Your task to perform on an android device: see creations saved in the google photos Image 0: 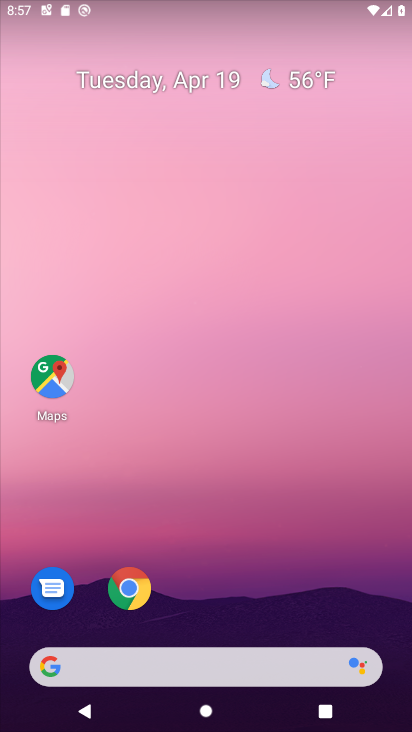
Step 0: drag from (217, 623) to (237, 38)
Your task to perform on an android device: see creations saved in the google photos Image 1: 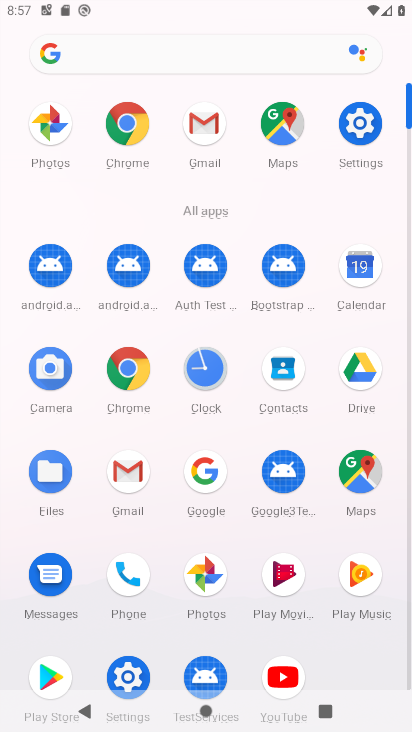
Step 1: click (48, 116)
Your task to perform on an android device: see creations saved in the google photos Image 2: 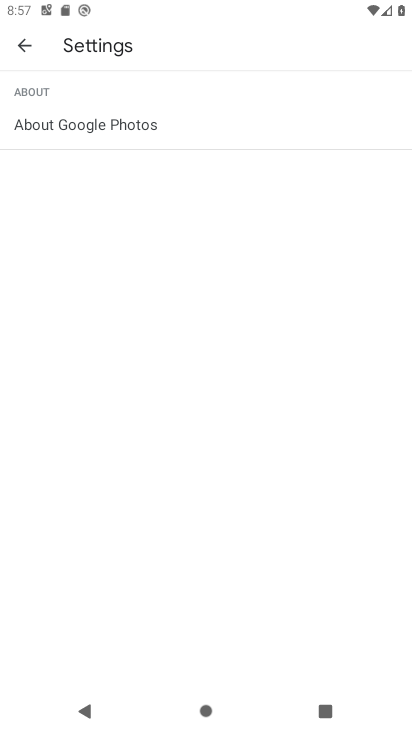
Step 2: press home button
Your task to perform on an android device: see creations saved in the google photos Image 3: 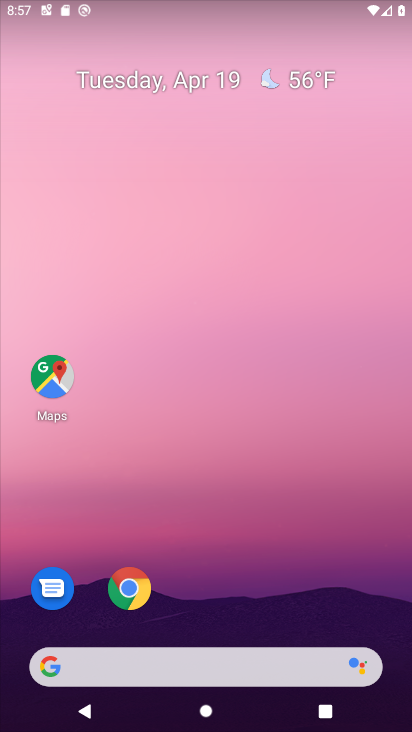
Step 3: drag from (199, 207) to (199, 41)
Your task to perform on an android device: see creations saved in the google photos Image 4: 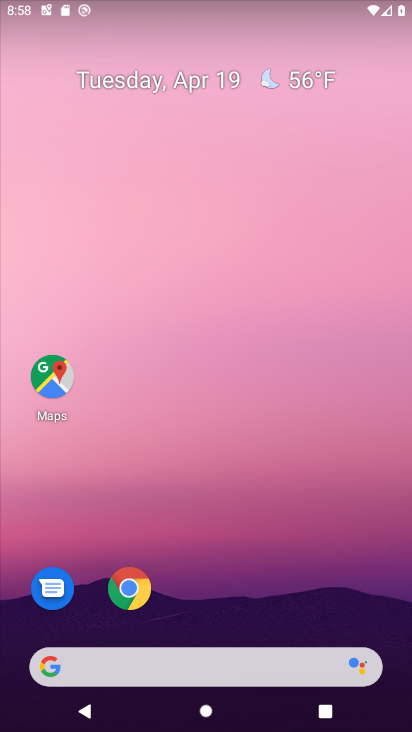
Step 4: drag from (213, 599) to (212, 54)
Your task to perform on an android device: see creations saved in the google photos Image 5: 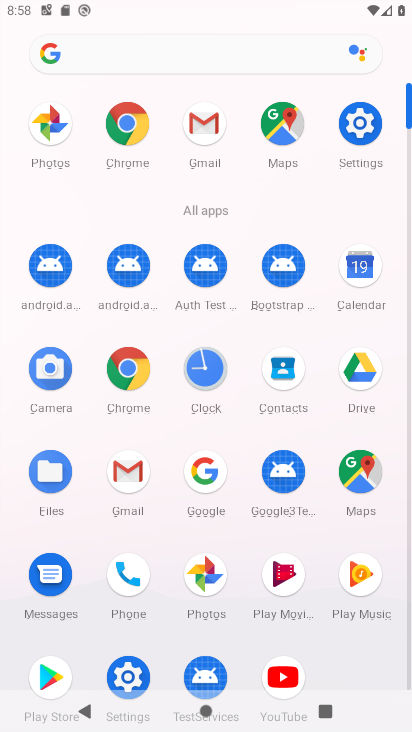
Step 5: click (49, 118)
Your task to perform on an android device: see creations saved in the google photos Image 6: 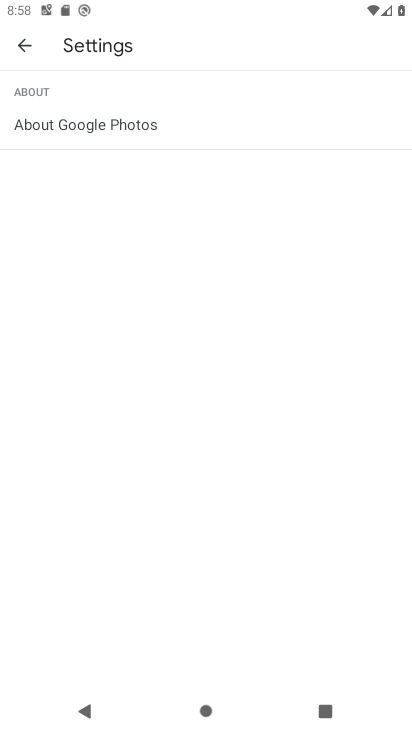
Step 6: click (29, 53)
Your task to perform on an android device: see creations saved in the google photos Image 7: 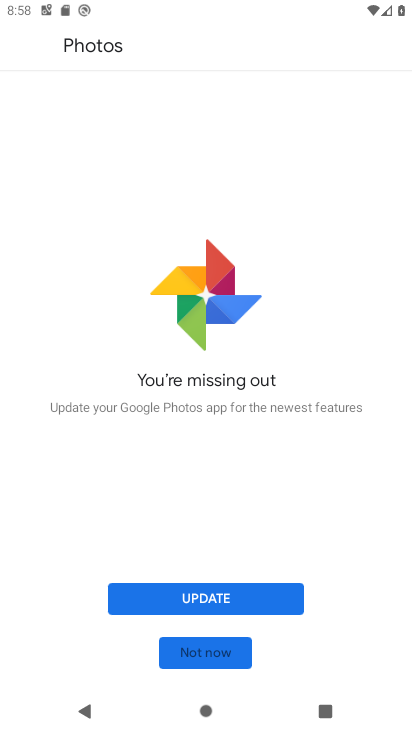
Step 7: click (206, 597)
Your task to perform on an android device: see creations saved in the google photos Image 8: 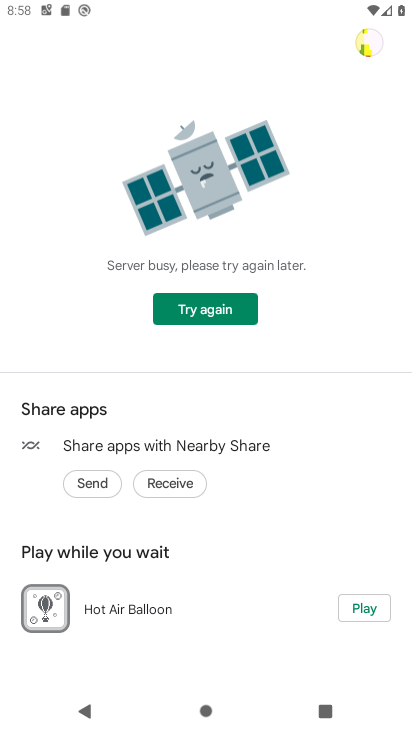
Step 8: task complete